Your task to perform on an android device: turn off location Image 0: 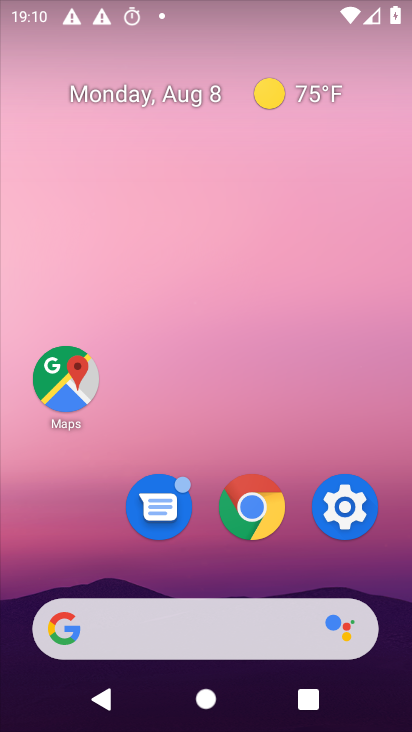
Step 0: drag from (309, 643) to (186, 130)
Your task to perform on an android device: turn off location Image 1: 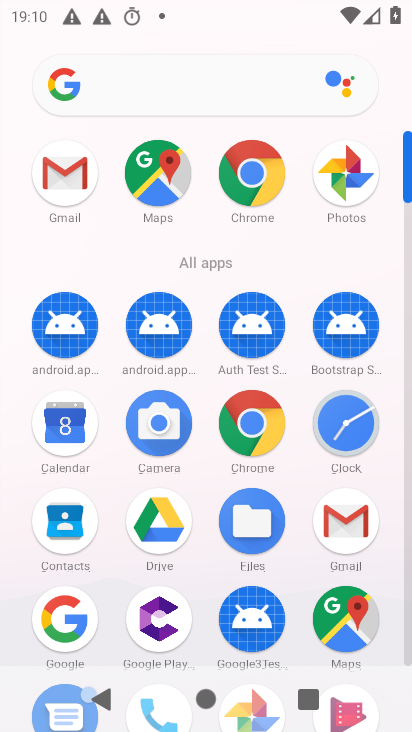
Step 1: drag from (194, 475) to (176, 313)
Your task to perform on an android device: turn off location Image 2: 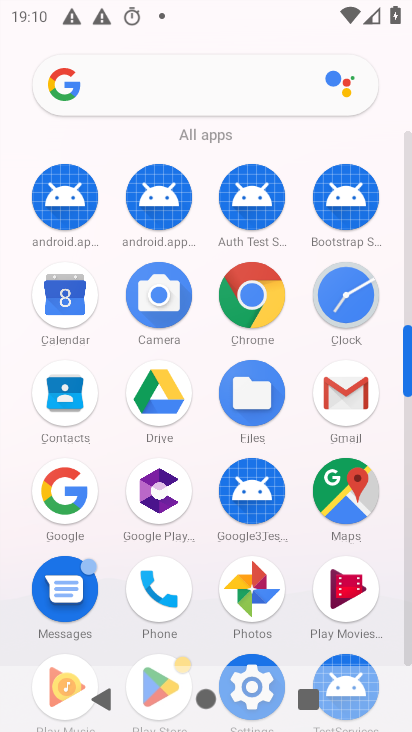
Step 2: click (240, 658)
Your task to perform on an android device: turn off location Image 3: 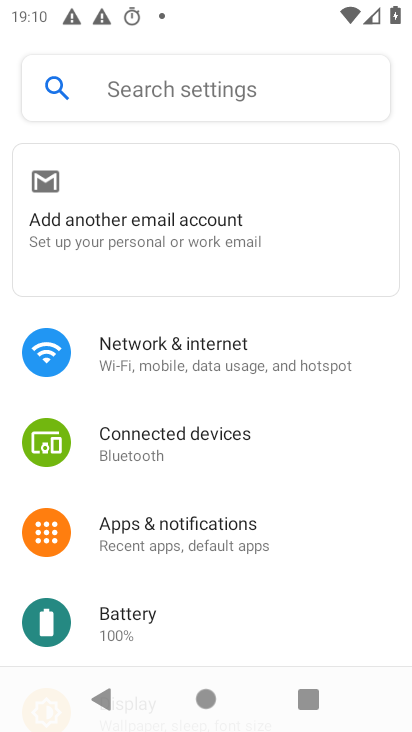
Step 3: drag from (233, 632) to (233, 400)
Your task to perform on an android device: turn off location Image 4: 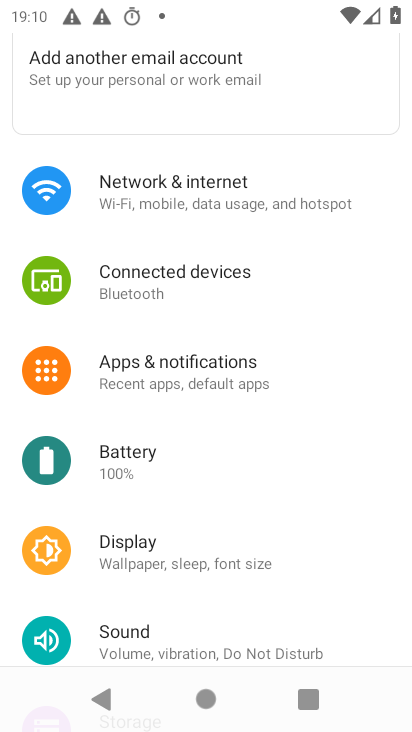
Step 4: drag from (192, 553) to (145, 375)
Your task to perform on an android device: turn off location Image 5: 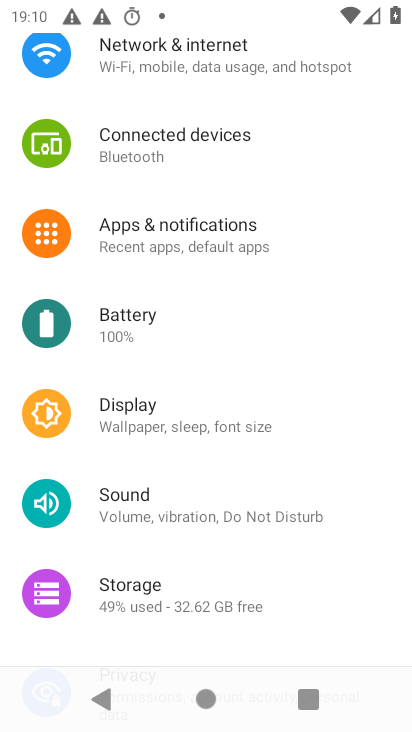
Step 5: drag from (164, 553) to (119, 365)
Your task to perform on an android device: turn off location Image 6: 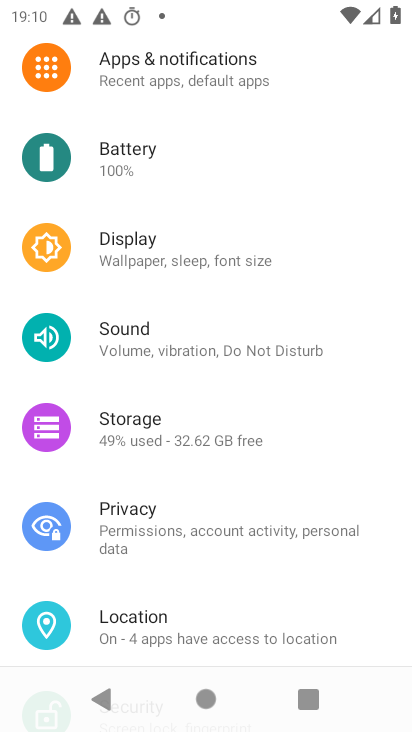
Step 6: click (168, 624)
Your task to perform on an android device: turn off location Image 7: 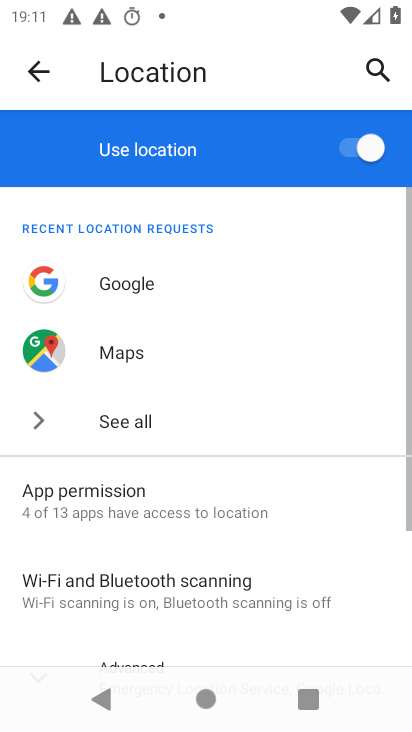
Step 7: drag from (166, 587) to (160, 418)
Your task to perform on an android device: turn off location Image 8: 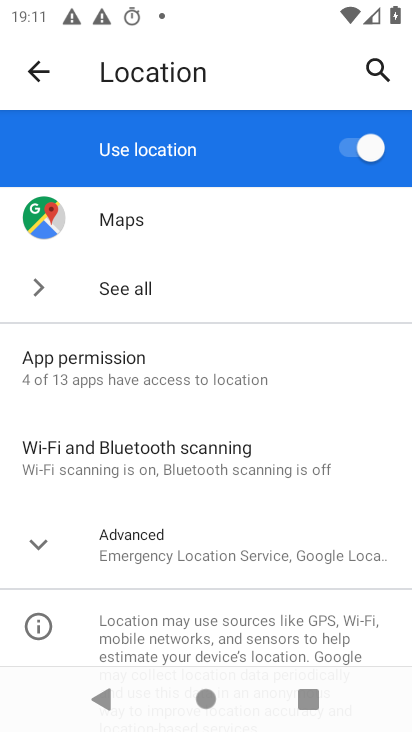
Step 8: click (356, 135)
Your task to perform on an android device: turn off location Image 9: 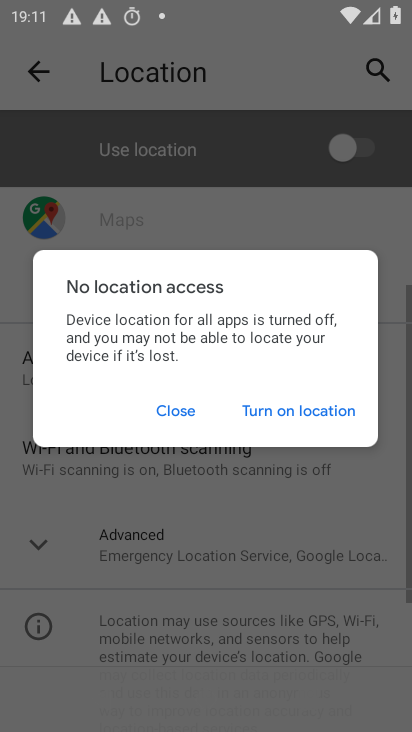
Step 9: task complete